Your task to perform on an android device: Open Wikipedia Image 0: 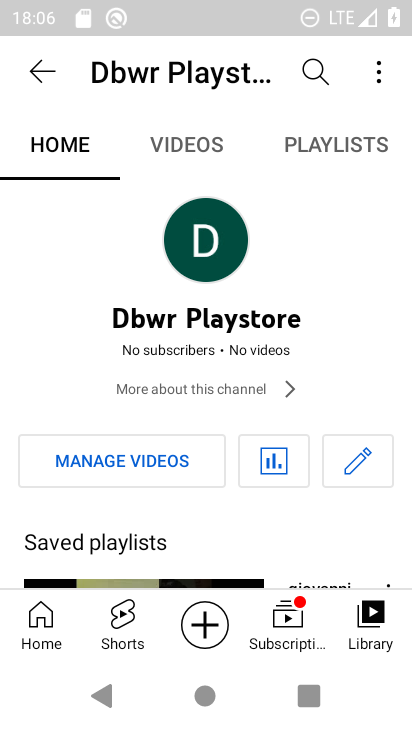
Step 0: press home button
Your task to perform on an android device: Open Wikipedia Image 1: 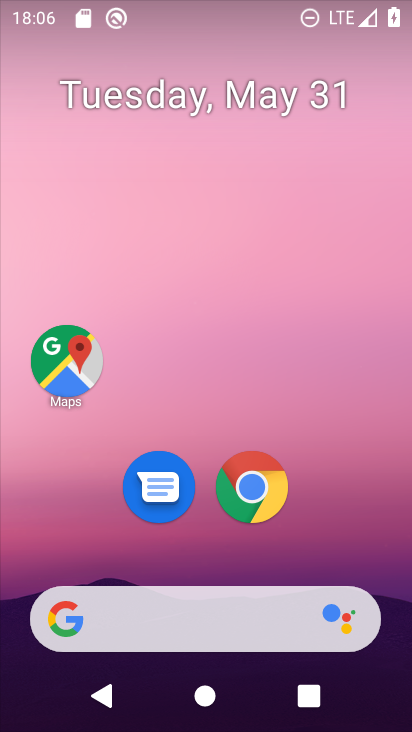
Step 1: click (255, 483)
Your task to perform on an android device: Open Wikipedia Image 2: 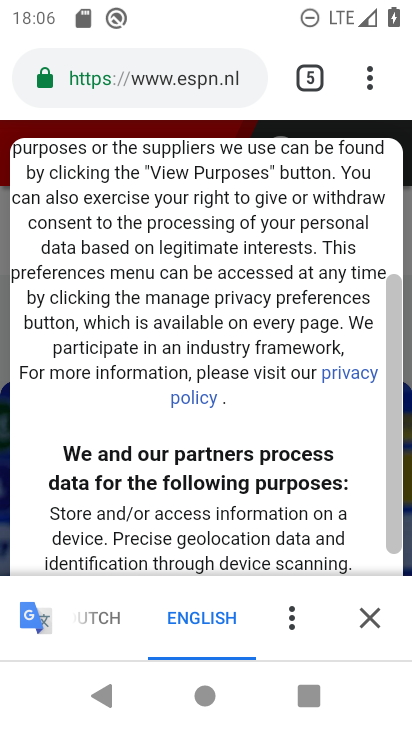
Step 2: click (366, 69)
Your task to perform on an android device: Open Wikipedia Image 3: 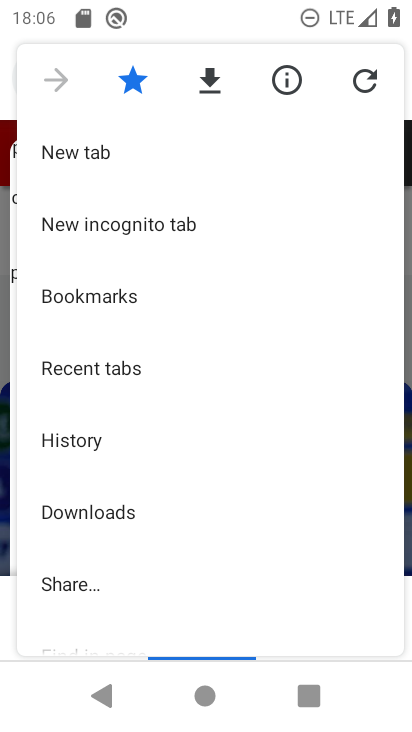
Step 3: click (101, 148)
Your task to perform on an android device: Open Wikipedia Image 4: 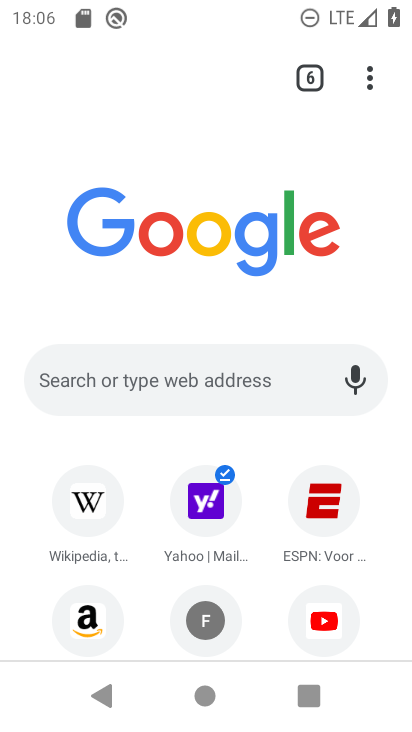
Step 4: click (97, 491)
Your task to perform on an android device: Open Wikipedia Image 5: 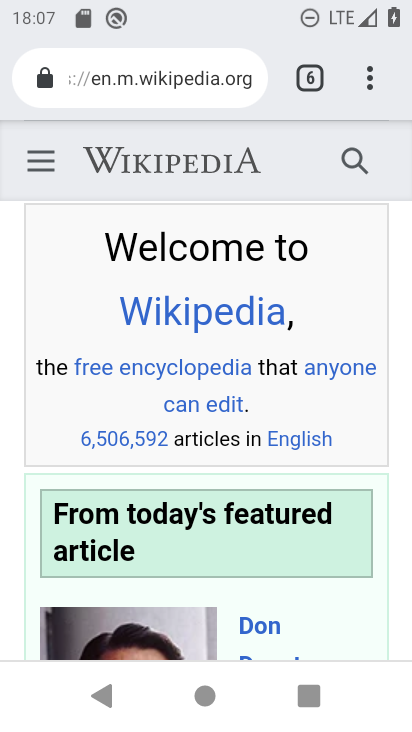
Step 5: task complete